Your task to perform on an android device: Go to display settings Image 0: 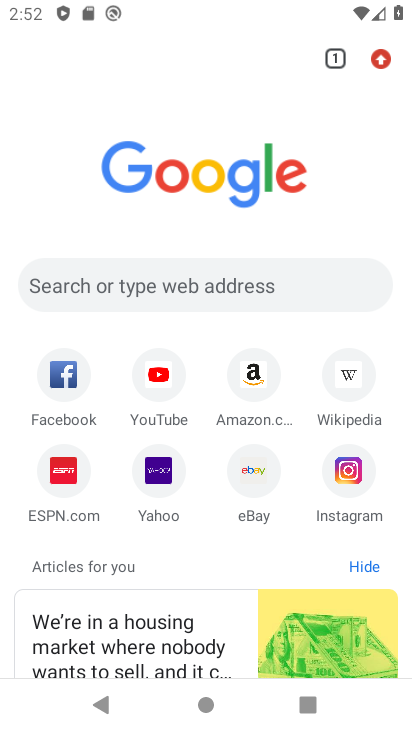
Step 0: press home button
Your task to perform on an android device: Go to display settings Image 1: 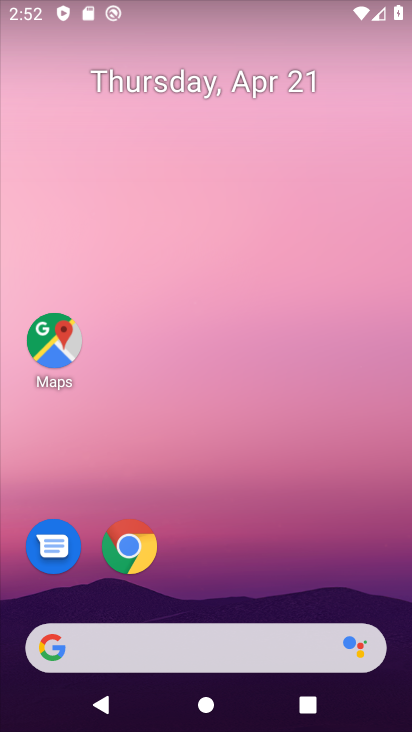
Step 1: drag from (241, 675) to (253, 189)
Your task to perform on an android device: Go to display settings Image 2: 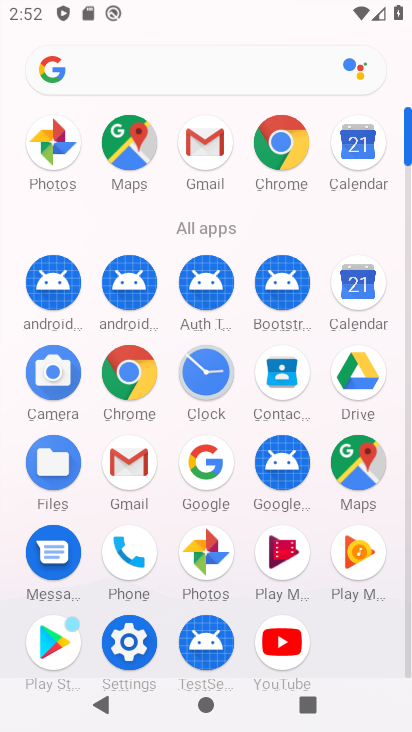
Step 2: click (107, 639)
Your task to perform on an android device: Go to display settings Image 3: 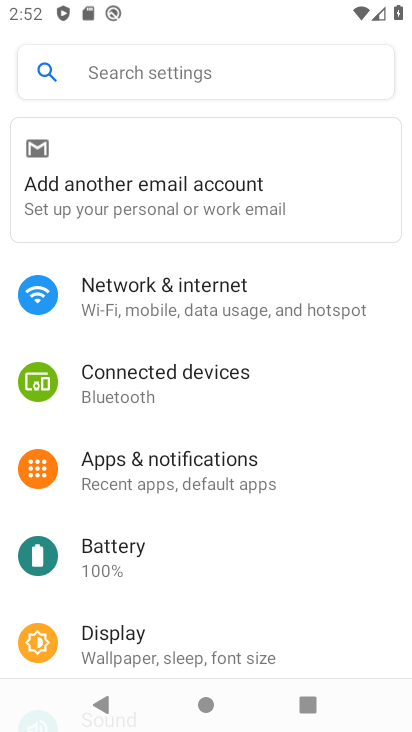
Step 3: click (168, 654)
Your task to perform on an android device: Go to display settings Image 4: 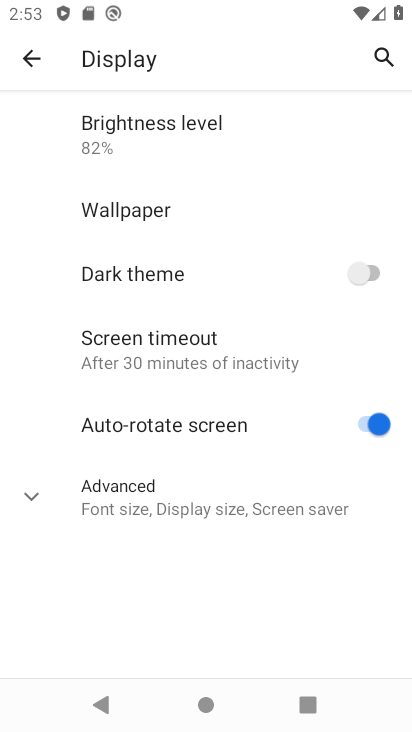
Step 4: task complete